Your task to perform on an android device: Open settings on Google Maps Image 0: 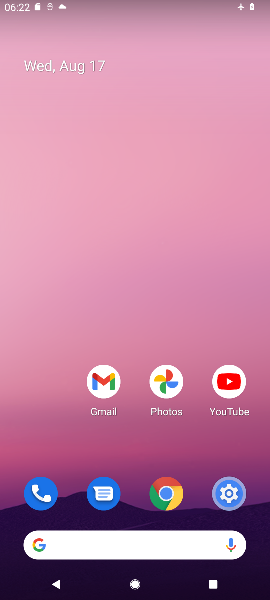
Step 0: press home button
Your task to perform on an android device: Open settings on Google Maps Image 1: 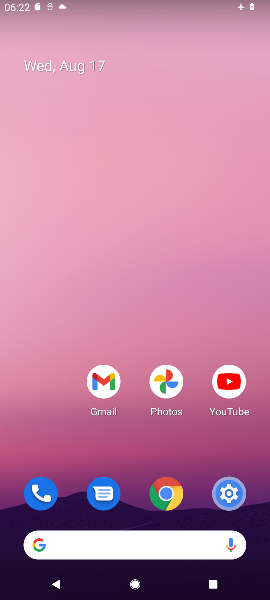
Step 1: drag from (143, 457) to (164, 26)
Your task to perform on an android device: Open settings on Google Maps Image 2: 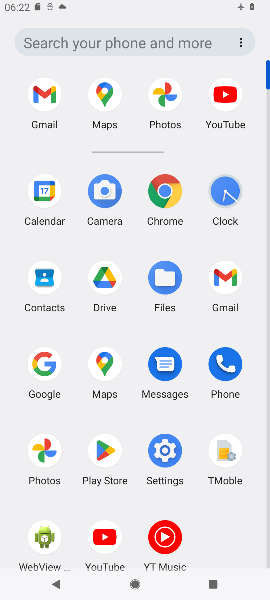
Step 2: click (104, 95)
Your task to perform on an android device: Open settings on Google Maps Image 3: 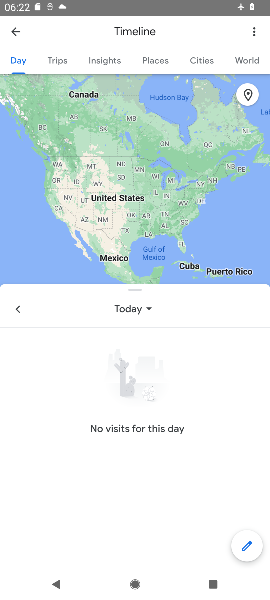
Step 3: press back button
Your task to perform on an android device: Open settings on Google Maps Image 4: 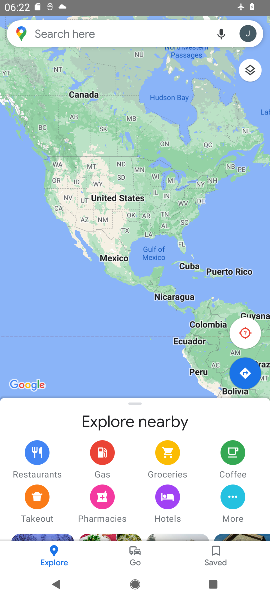
Step 4: click (252, 34)
Your task to perform on an android device: Open settings on Google Maps Image 5: 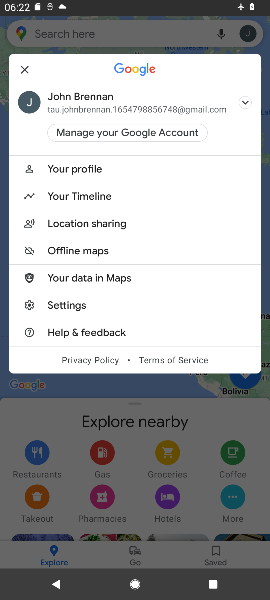
Step 5: click (73, 308)
Your task to perform on an android device: Open settings on Google Maps Image 6: 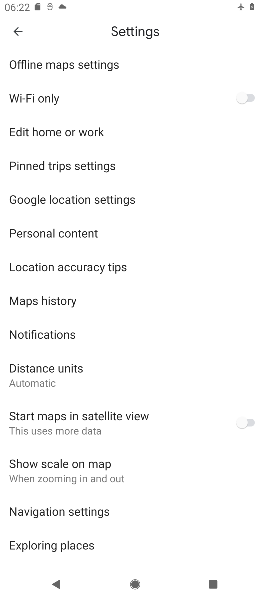
Step 6: task complete